Your task to perform on an android device: add a label to a message in the gmail app Image 0: 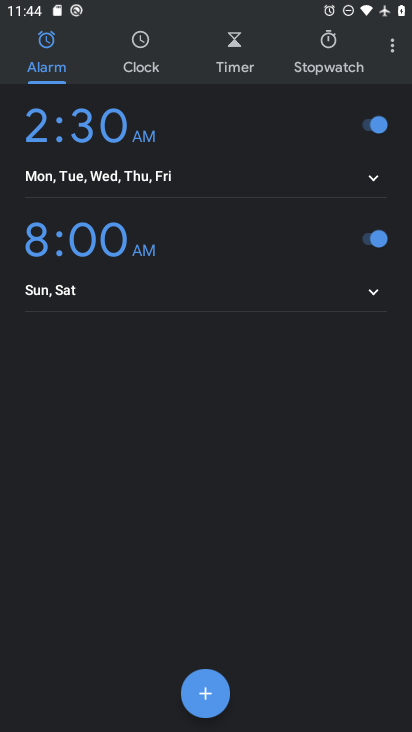
Step 0: press home button
Your task to perform on an android device: add a label to a message in the gmail app Image 1: 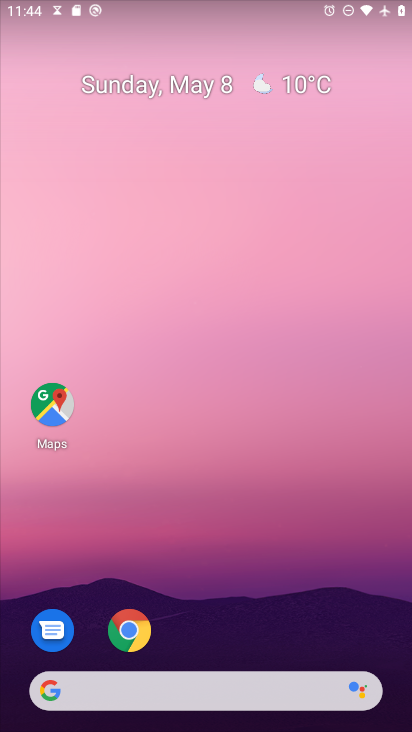
Step 1: drag from (179, 697) to (269, 158)
Your task to perform on an android device: add a label to a message in the gmail app Image 2: 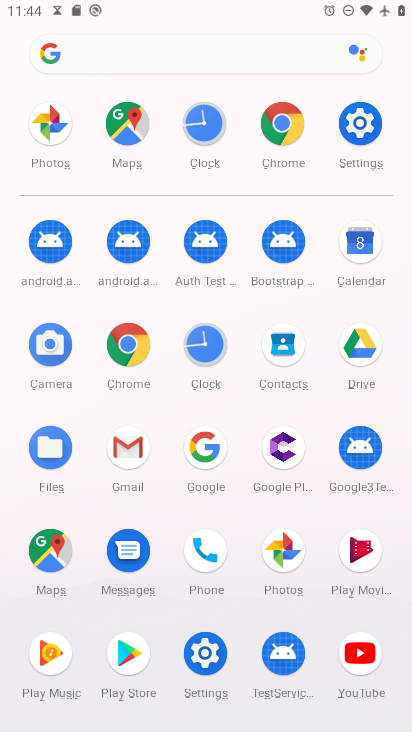
Step 2: click (135, 457)
Your task to perform on an android device: add a label to a message in the gmail app Image 3: 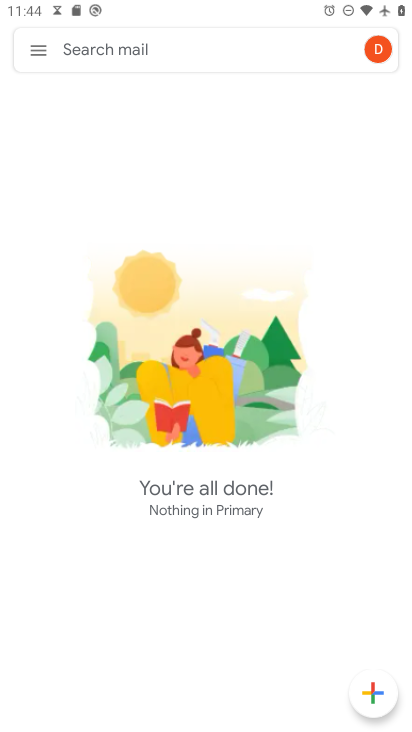
Step 3: click (38, 51)
Your task to perform on an android device: add a label to a message in the gmail app Image 4: 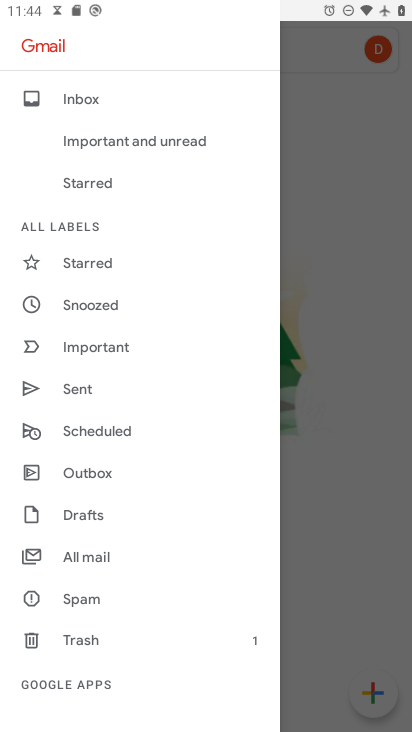
Step 4: click (109, 558)
Your task to perform on an android device: add a label to a message in the gmail app Image 5: 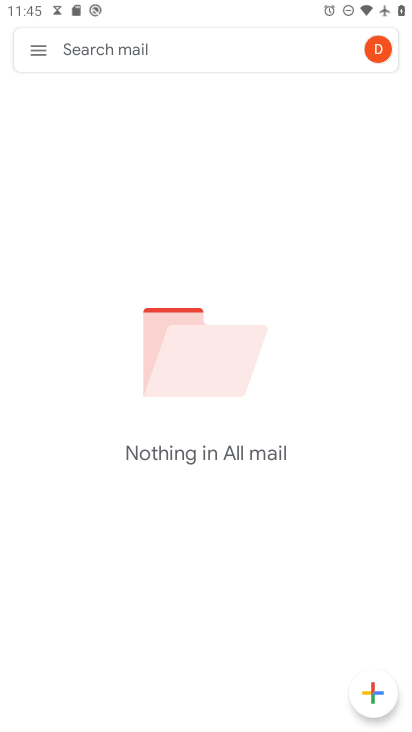
Step 5: task complete